Your task to perform on an android device: Go to accessibility settings Image 0: 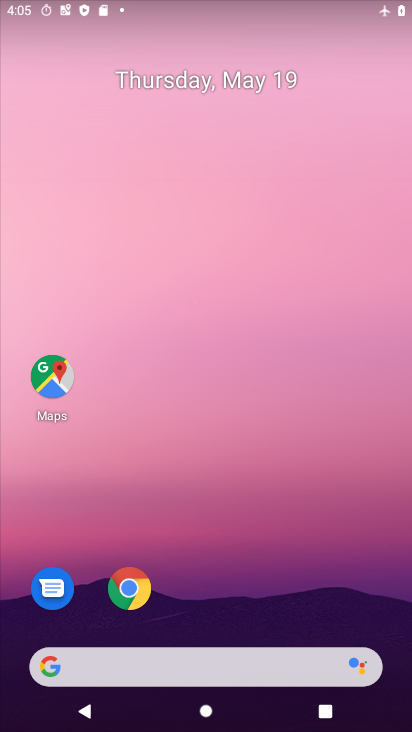
Step 0: drag from (199, 555) to (289, 69)
Your task to perform on an android device: Go to accessibility settings Image 1: 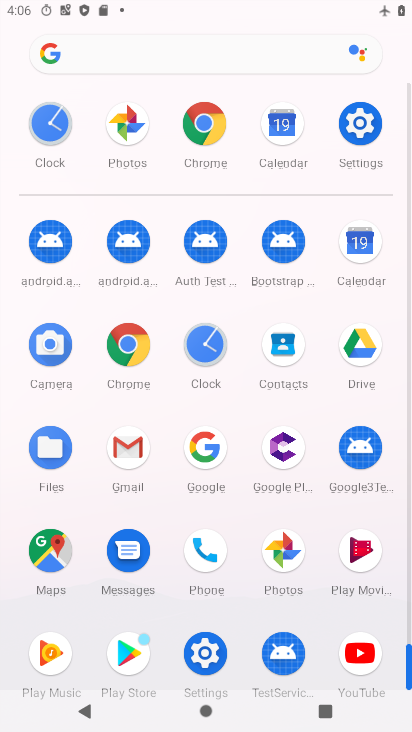
Step 1: click (361, 141)
Your task to perform on an android device: Go to accessibility settings Image 2: 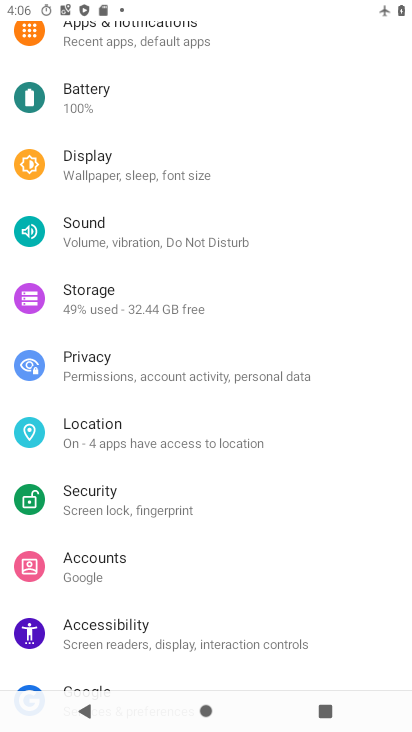
Step 2: click (144, 634)
Your task to perform on an android device: Go to accessibility settings Image 3: 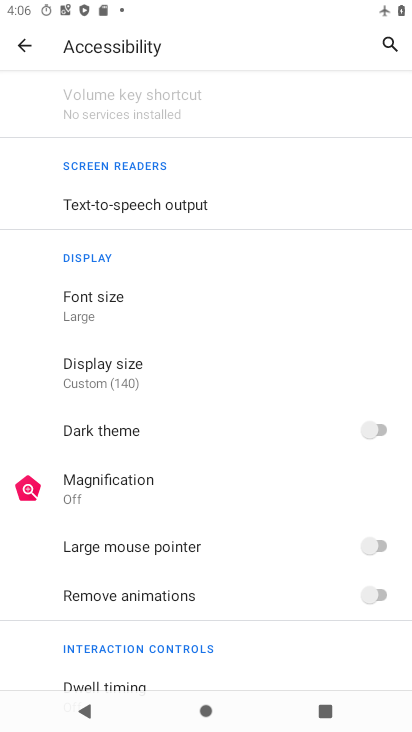
Step 3: task complete